Your task to perform on an android device: change the clock style Image 0: 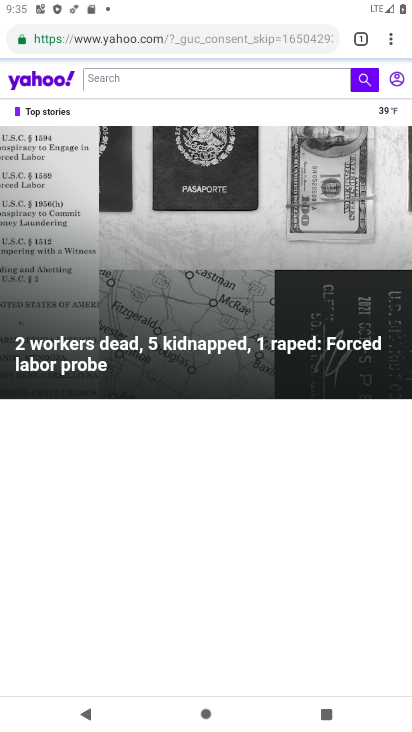
Step 0: press home button
Your task to perform on an android device: change the clock style Image 1: 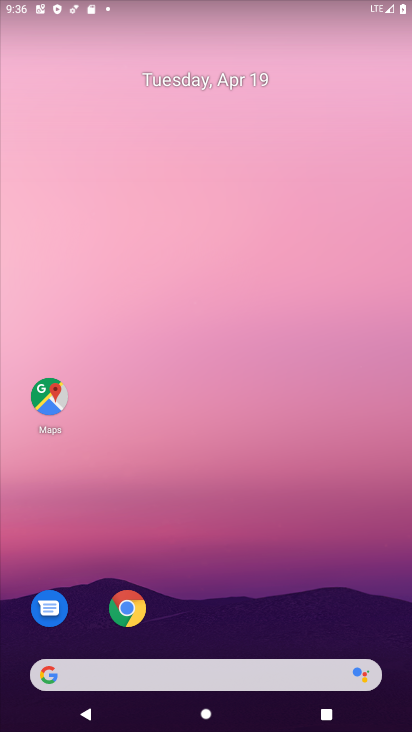
Step 1: drag from (327, 609) to (262, 123)
Your task to perform on an android device: change the clock style Image 2: 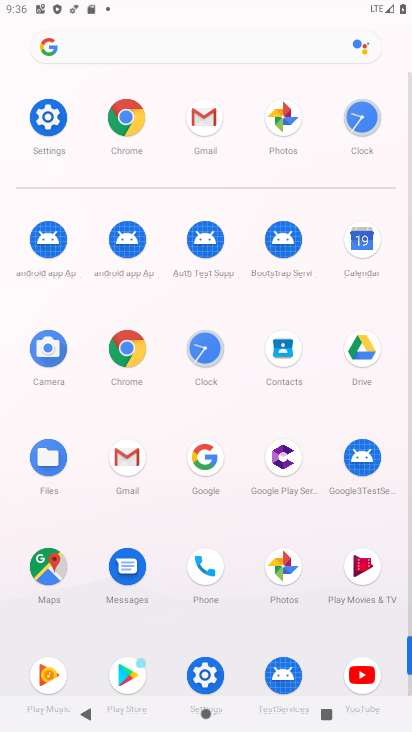
Step 2: click (202, 345)
Your task to perform on an android device: change the clock style Image 3: 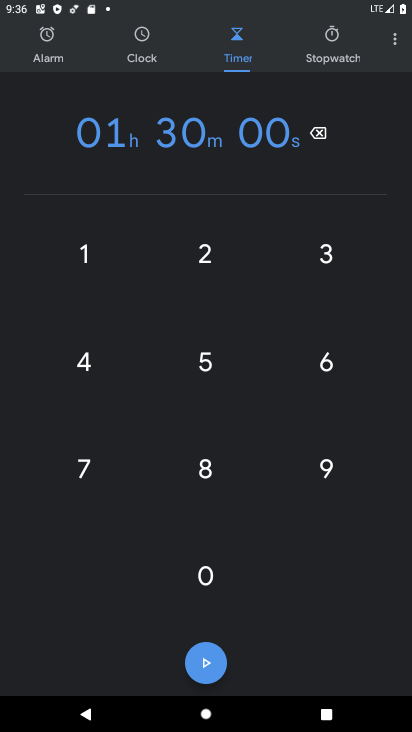
Step 3: click (392, 42)
Your task to perform on an android device: change the clock style Image 4: 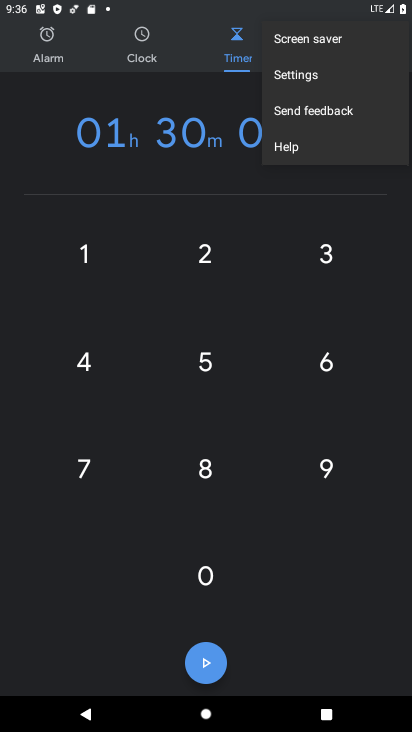
Step 4: click (284, 78)
Your task to perform on an android device: change the clock style Image 5: 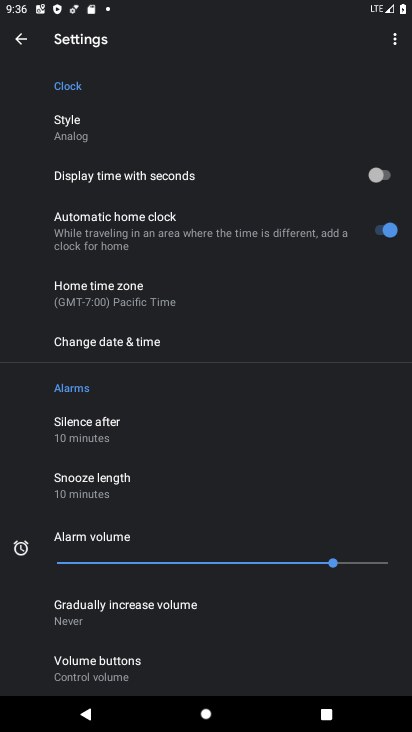
Step 5: click (73, 126)
Your task to perform on an android device: change the clock style Image 6: 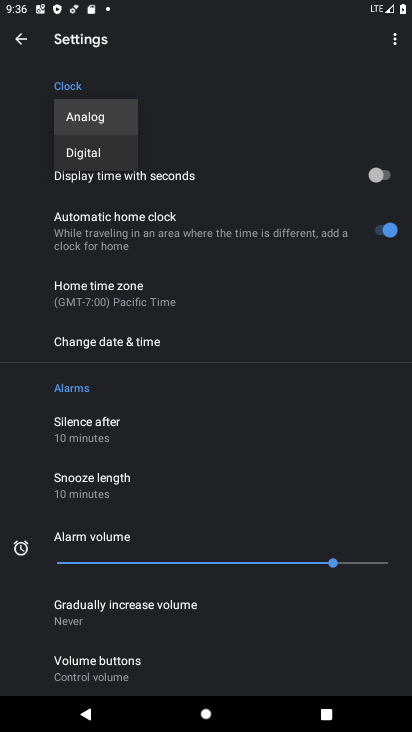
Step 6: click (83, 153)
Your task to perform on an android device: change the clock style Image 7: 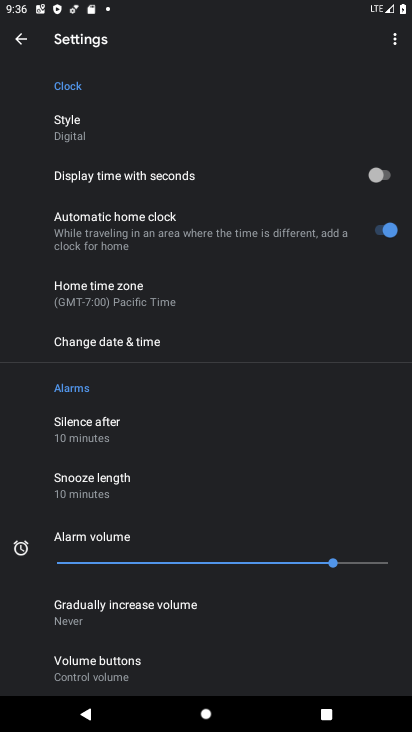
Step 7: task complete